Your task to perform on an android device: show emergency info Image 0: 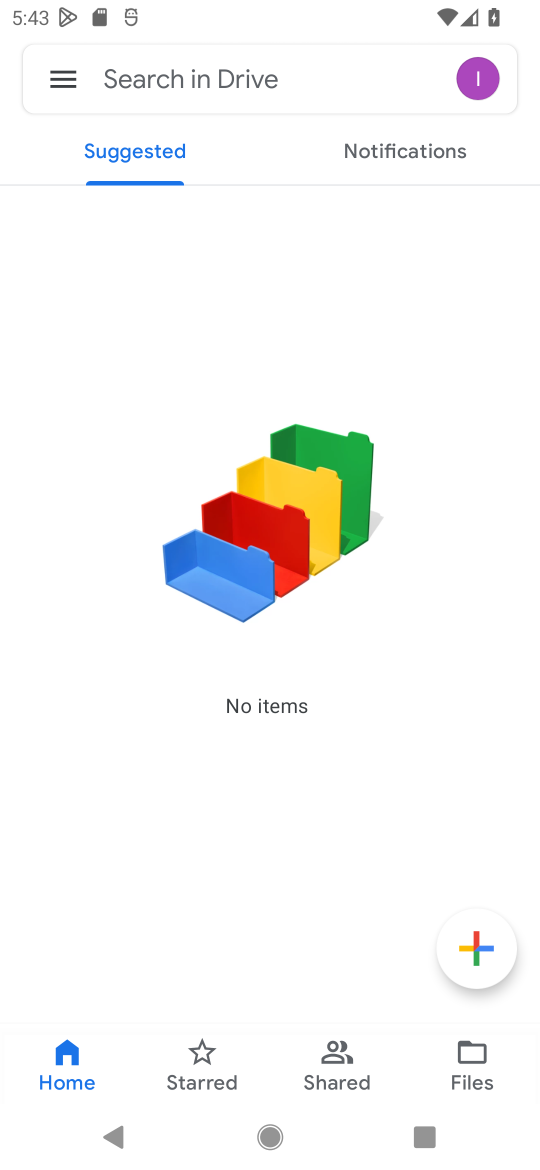
Step 0: press home button
Your task to perform on an android device: show emergency info Image 1: 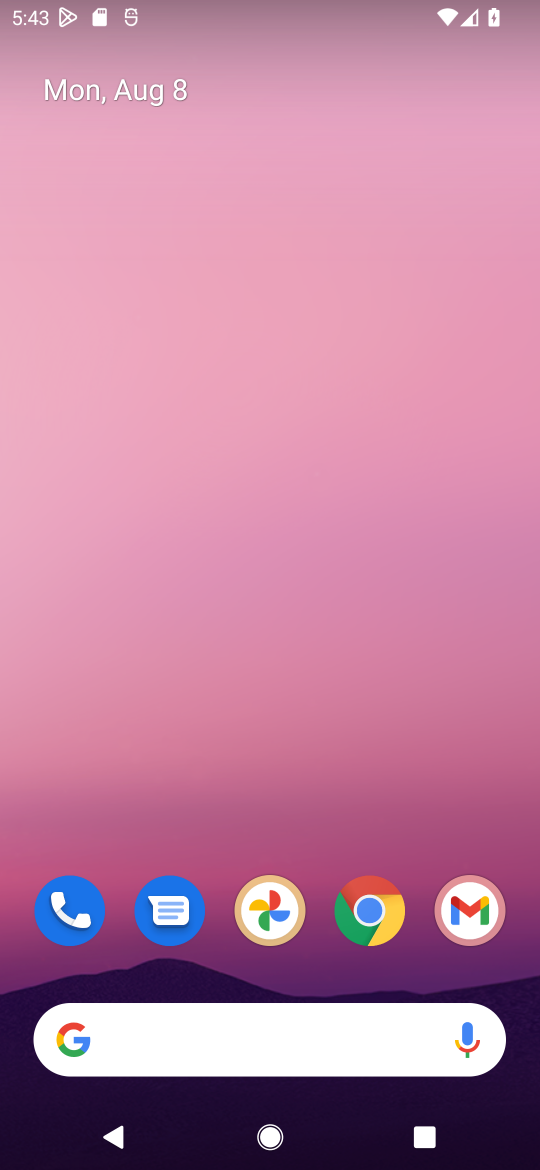
Step 1: drag from (256, 808) to (330, 184)
Your task to perform on an android device: show emergency info Image 2: 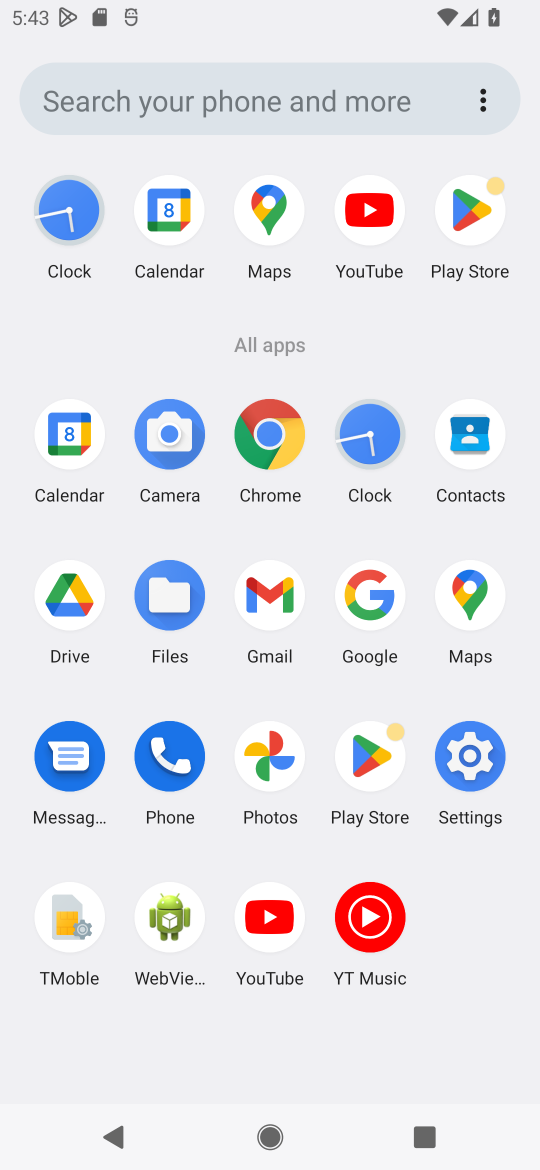
Step 2: click (473, 760)
Your task to perform on an android device: show emergency info Image 3: 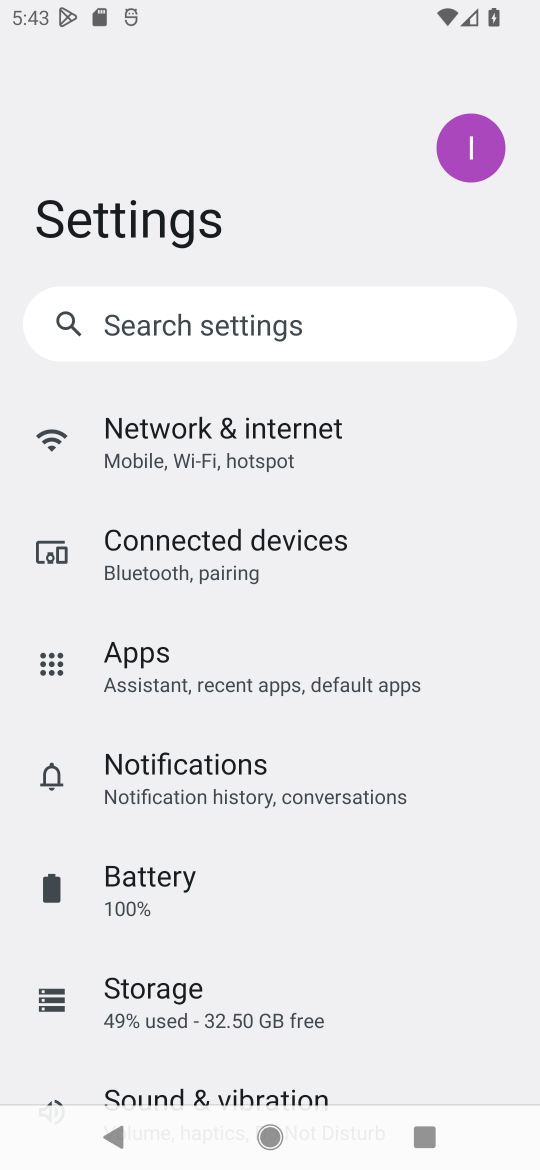
Step 3: drag from (362, 916) to (337, 54)
Your task to perform on an android device: show emergency info Image 4: 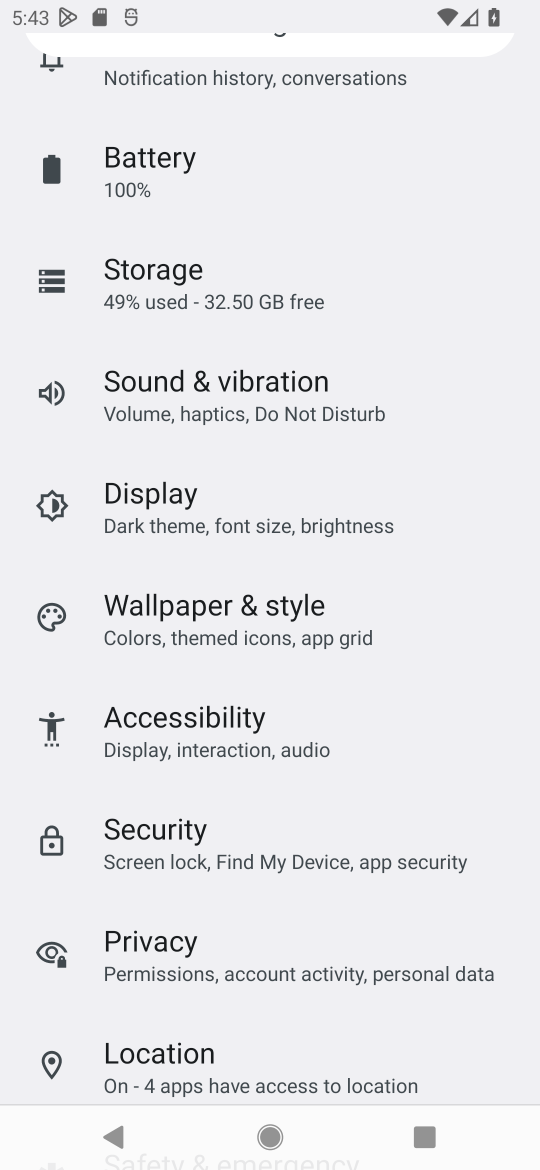
Step 4: drag from (435, 725) to (426, 123)
Your task to perform on an android device: show emergency info Image 5: 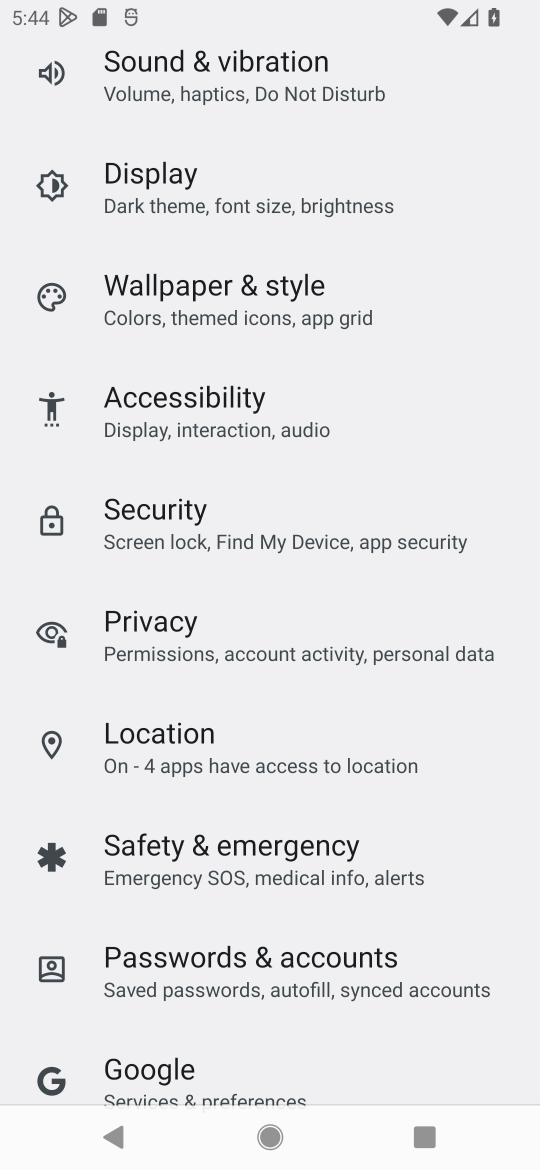
Step 5: click (253, 855)
Your task to perform on an android device: show emergency info Image 6: 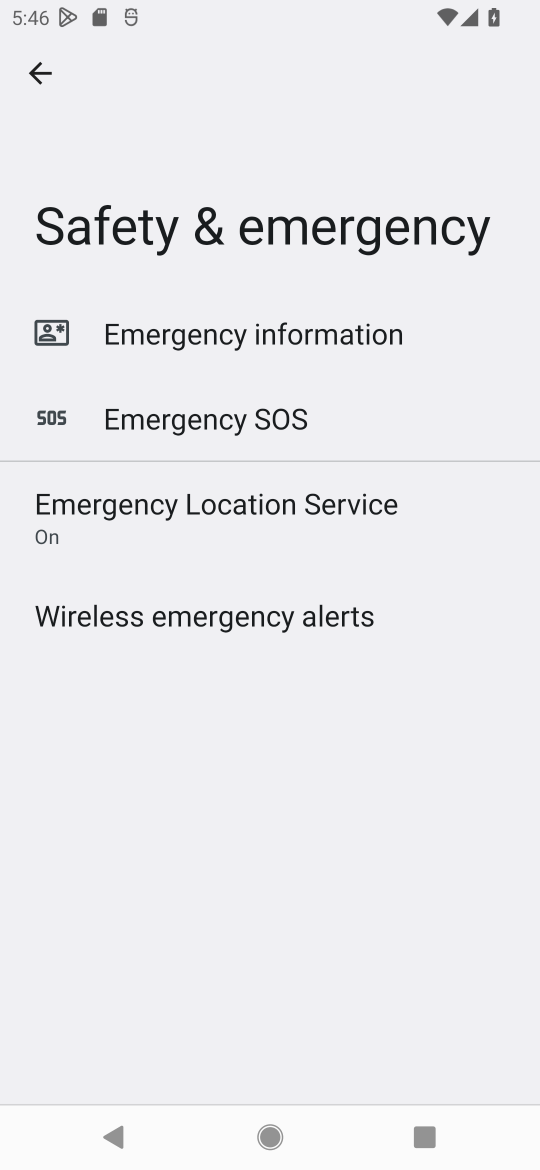
Step 6: task complete